Your task to perform on an android device: Open battery settings Image 0: 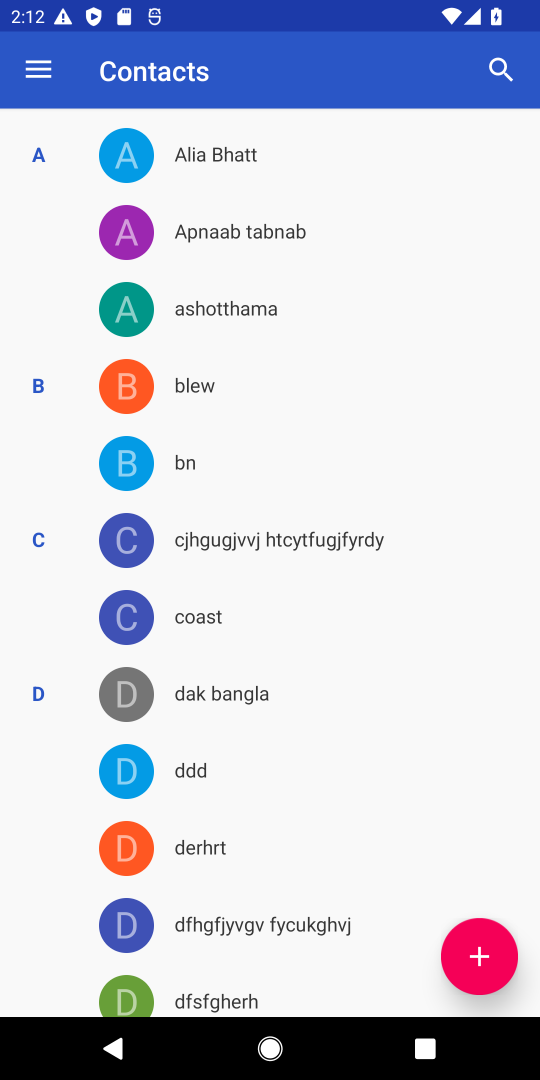
Step 0: press home button
Your task to perform on an android device: Open battery settings Image 1: 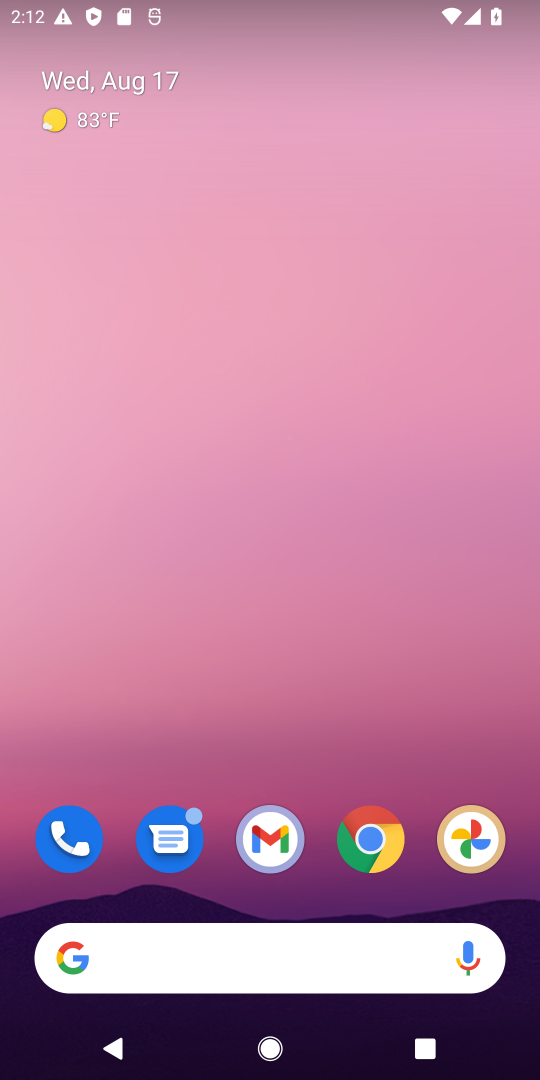
Step 1: drag from (301, 808) to (316, 62)
Your task to perform on an android device: Open battery settings Image 2: 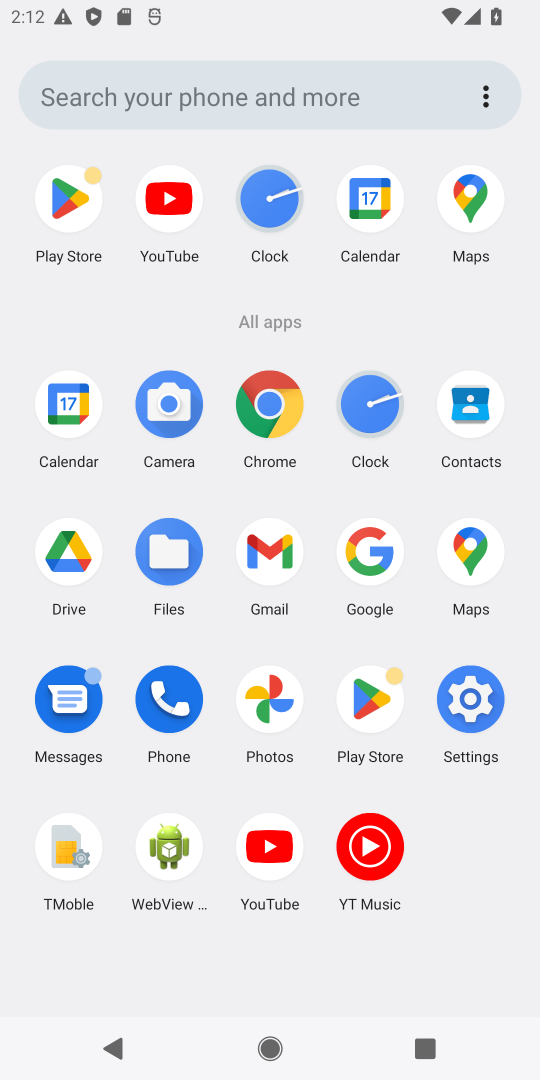
Step 2: click (469, 701)
Your task to perform on an android device: Open battery settings Image 3: 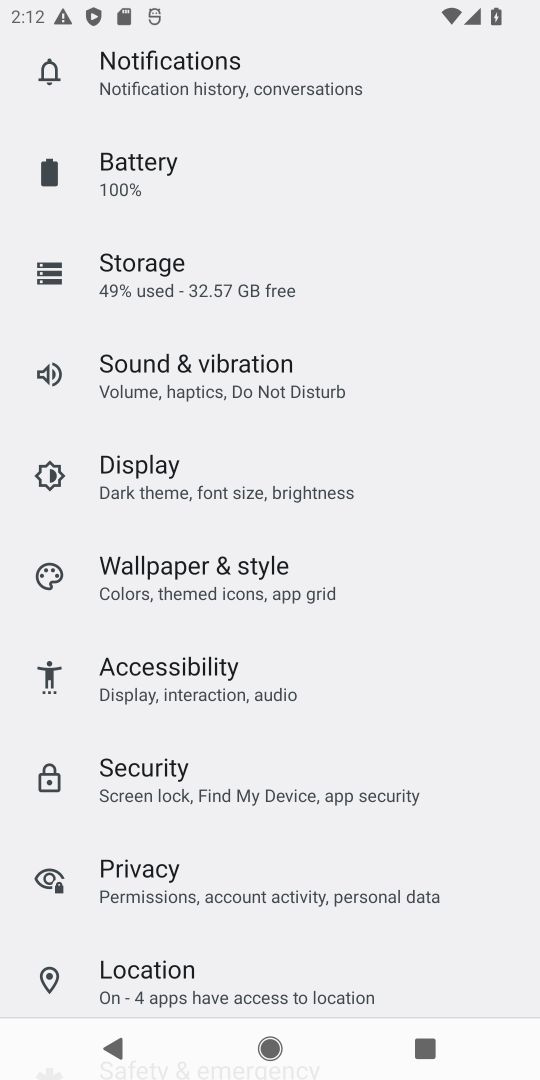
Step 3: click (144, 153)
Your task to perform on an android device: Open battery settings Image 4: 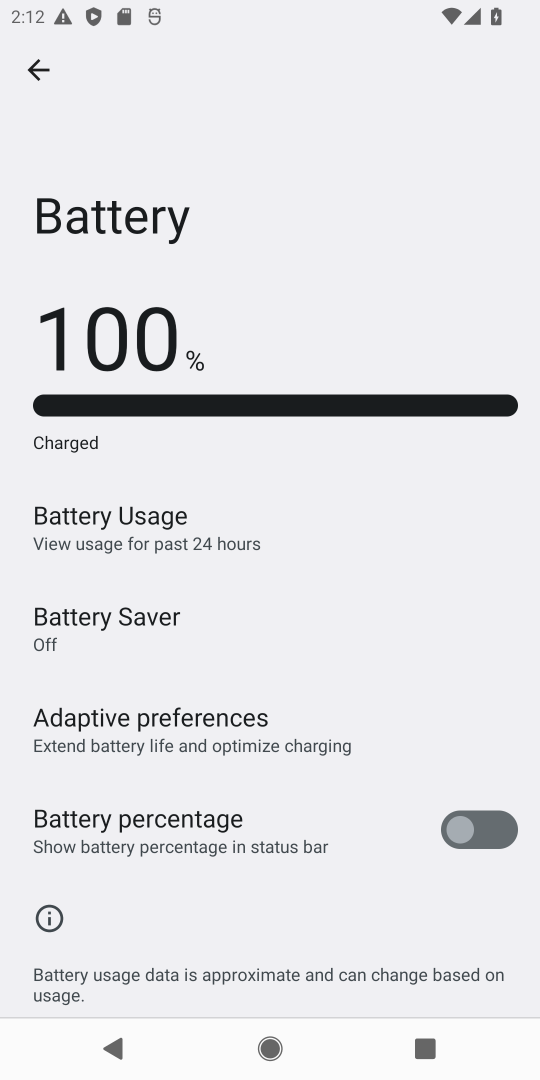
Step 4: task complete